Your task to perform on an android device: Open the phone app and click the voicemail tab. Image 0: 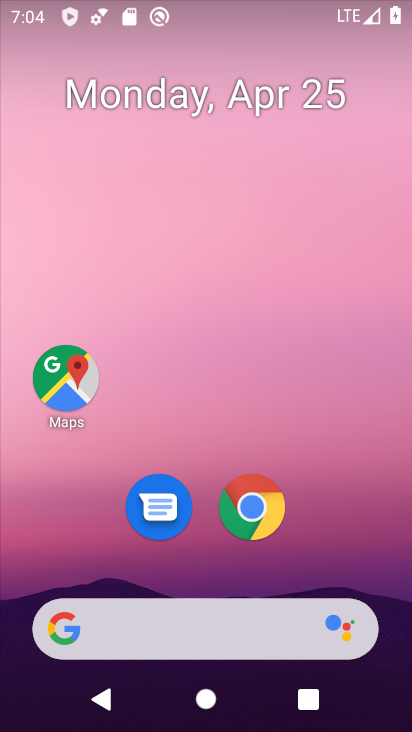
Step 0: drag from (345, 576) to (302, 108)
Your task to perform on an android device: Open the phone app and click the voicemail tab. Image 1: 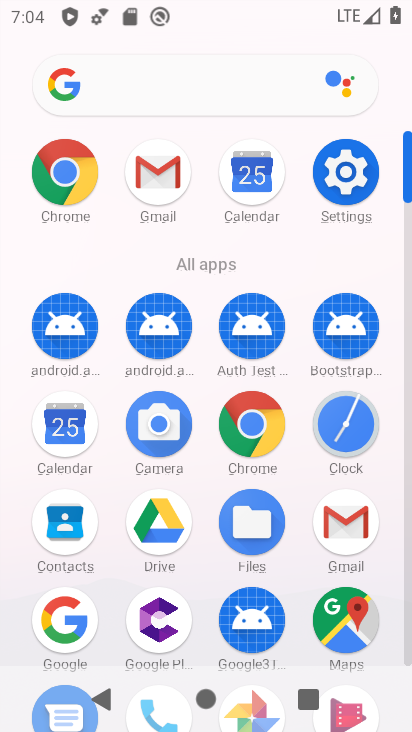
Step 1: click (409, 610)
Your task to perform on an android device: Open the phone app and click the voicemail tab. Image 2: 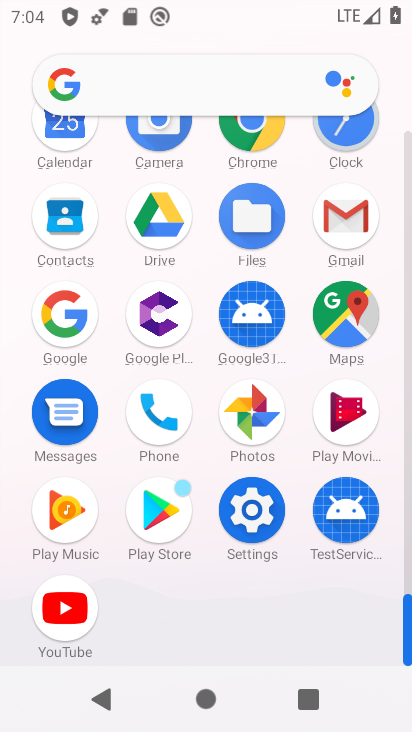
Step 2: click (167, 404)
Your task to perform on an android device: Open the phone app and click the voicemail tab. Image 3: 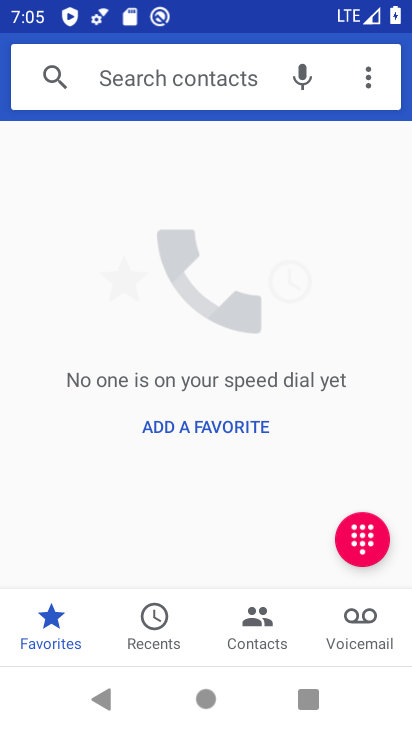
Step 3: click (340, 636)
Your task to perform on an android device: Open the phone app and click the voicemail tab. Image 4: 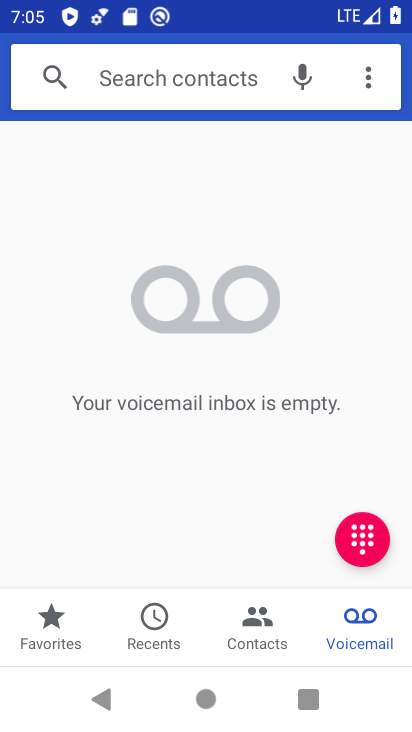
Step 4: task complete